Your task to perform on an android device: Open privacy settings Image 0: 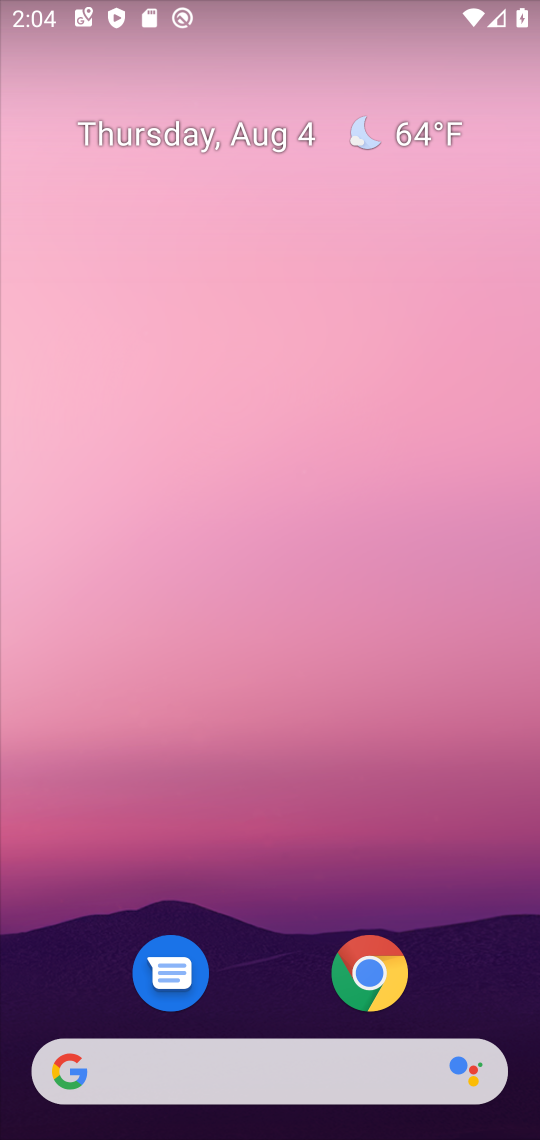
Step 0: drag from (225, 600) to (211, 28)
Your task to perform on an android device: Open privacy settings Image 1: 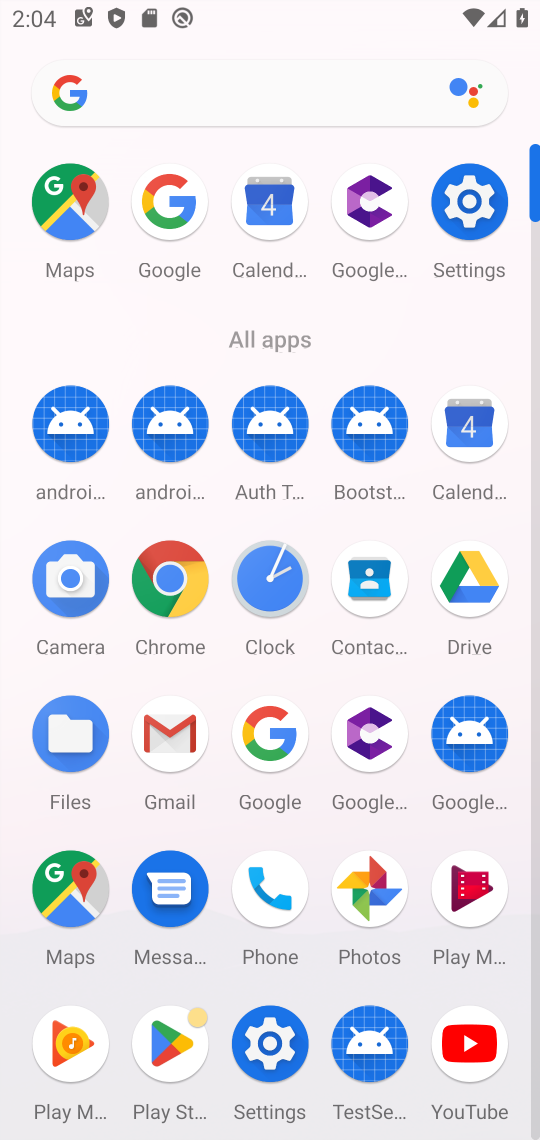
Step 1: click (266, 1042)
Your task to perform on an android device: Open privacy settings Image 2: 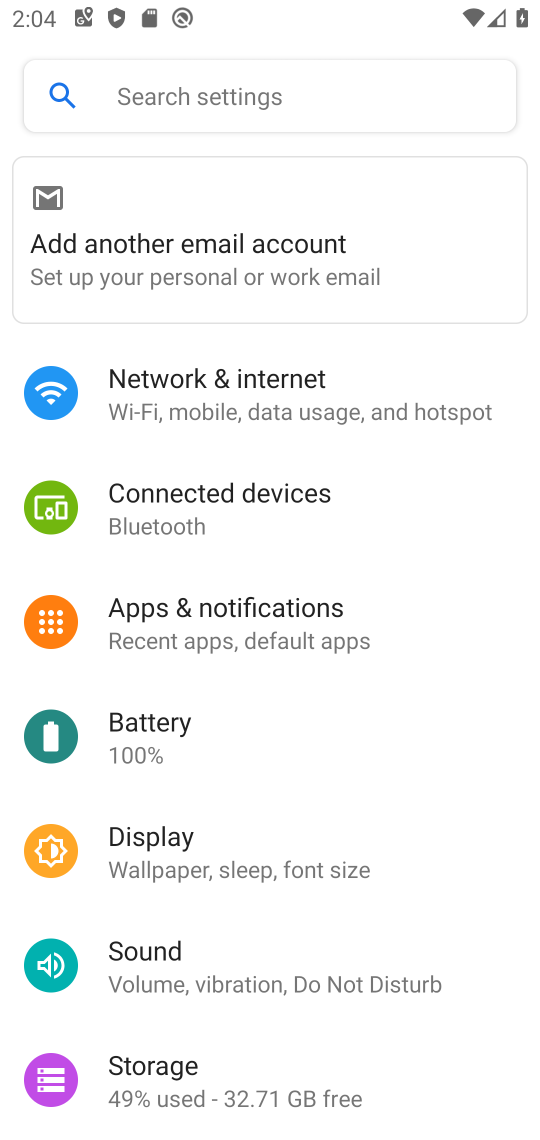
Step 2: drag from (179, 918) to (187, 0)
Your task to perform on an android device: Open privacy settings Image 3: 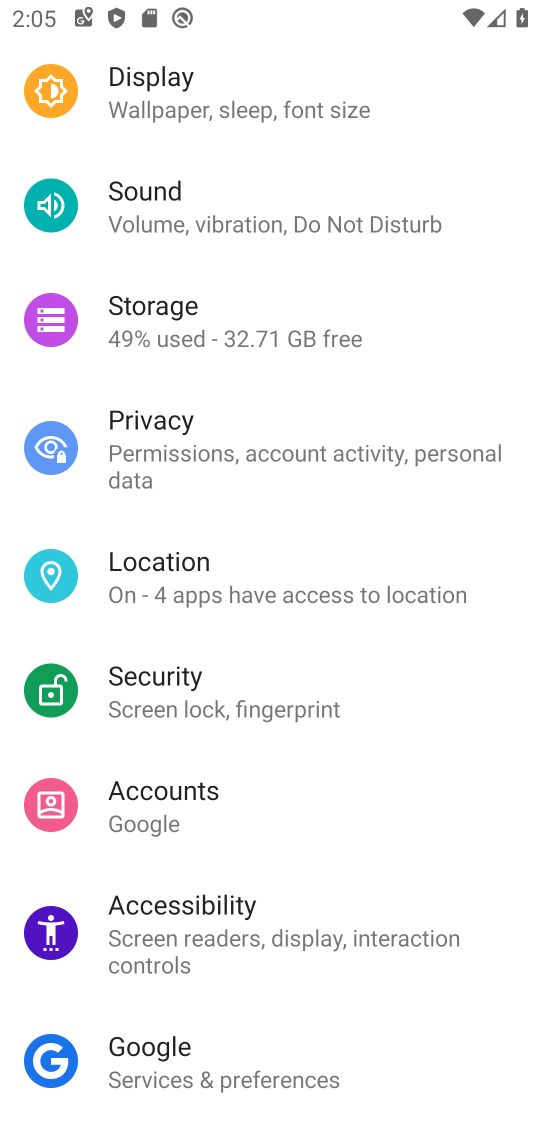
Step 3: click (155, 468)
Your task to perform on an android device: Open privacy settings Image 4: 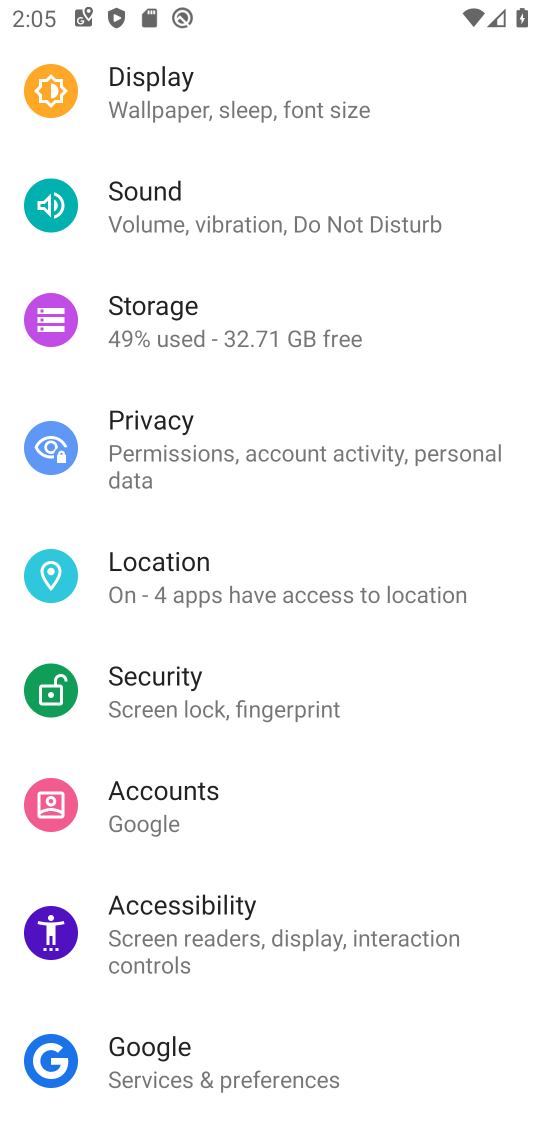
Step 4: task complete